Your task to perform on an android device: Clear the cart on newegg.com. Image 0: 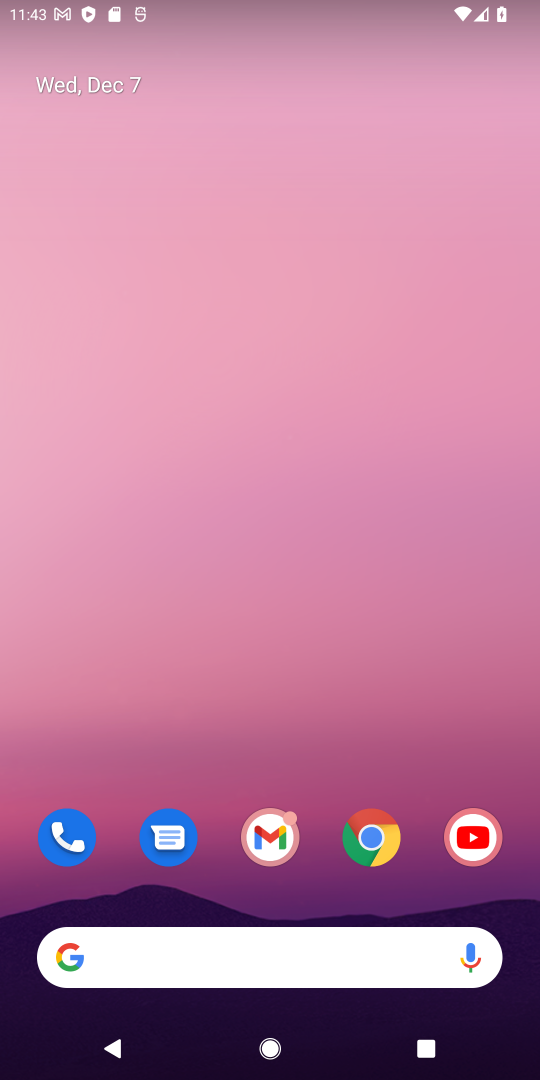
Step 0: click (353, 841)
Your task to perform on an android device: Clear the cart on newegg.com. Image 1: 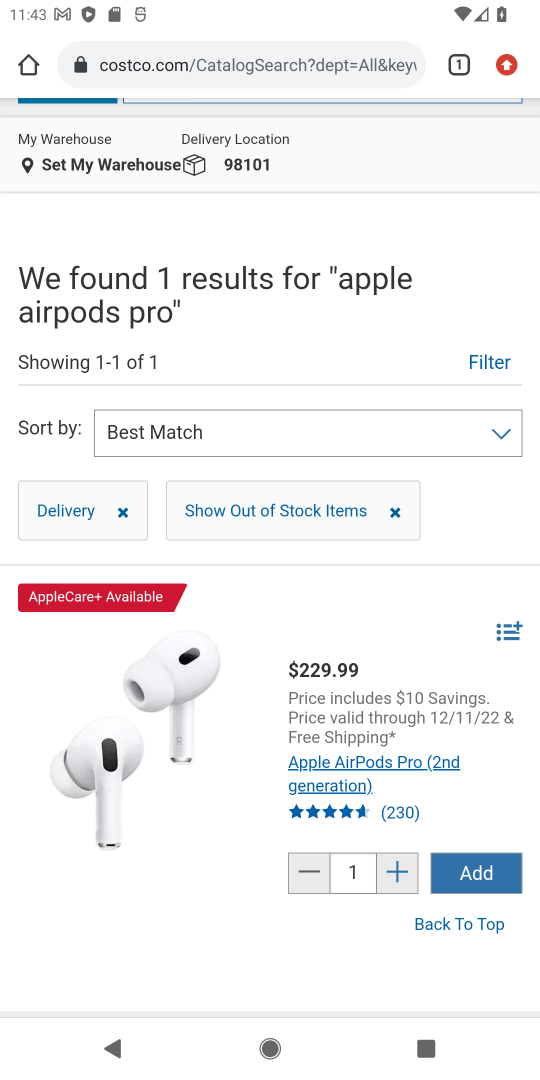
Step 1: click (299, 58)
Your task to perform on an android device: Clear the cart on newegg.com. Image 2: 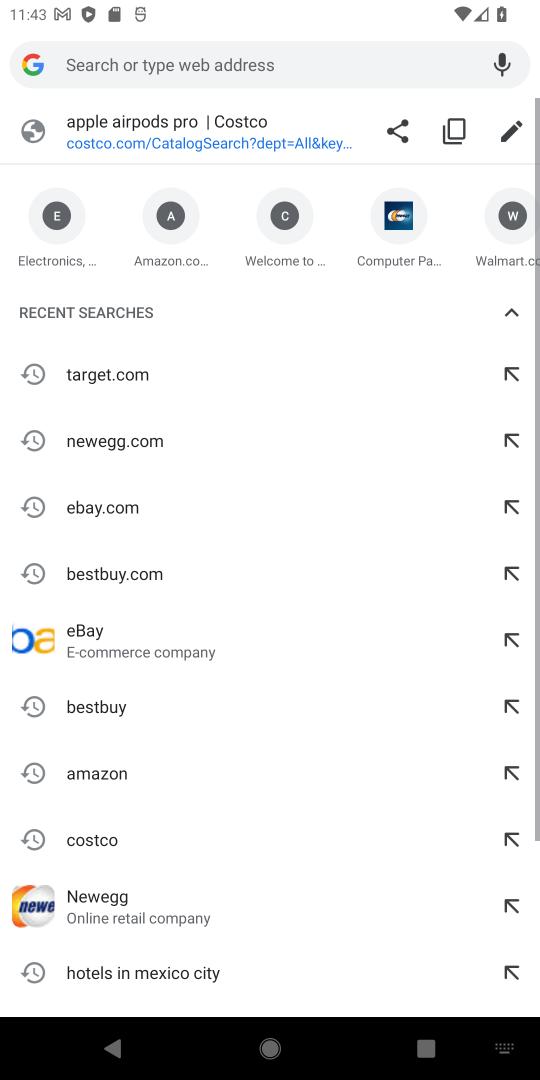
Step 2: click (122, 437)
Your task to perform on an android device: Clear the cart on newegg.com. Image 3: 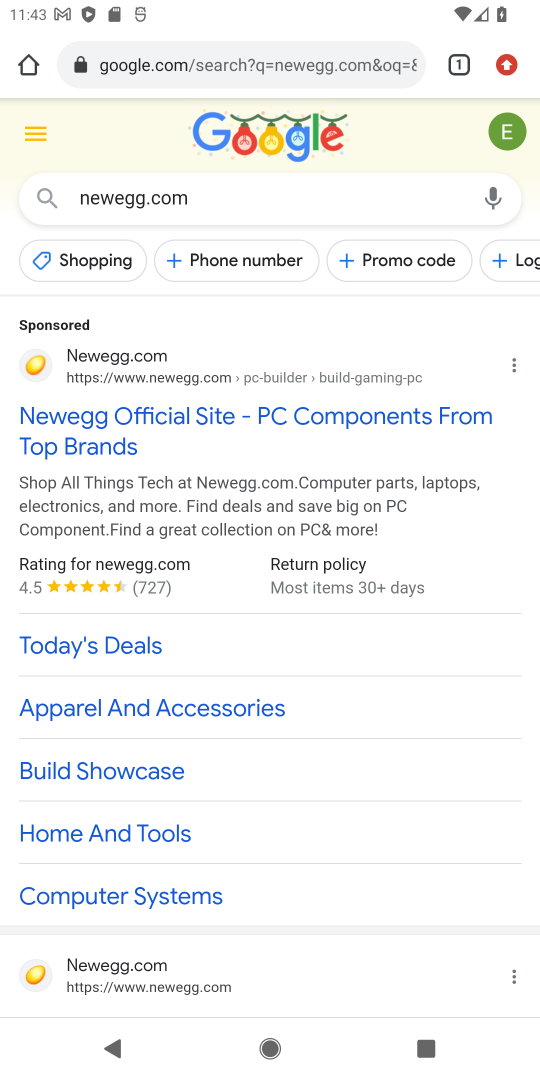
Step 3: click (141, 970)
Your task to perform on an android device: Clear the cart on newegg.com. Image 4: 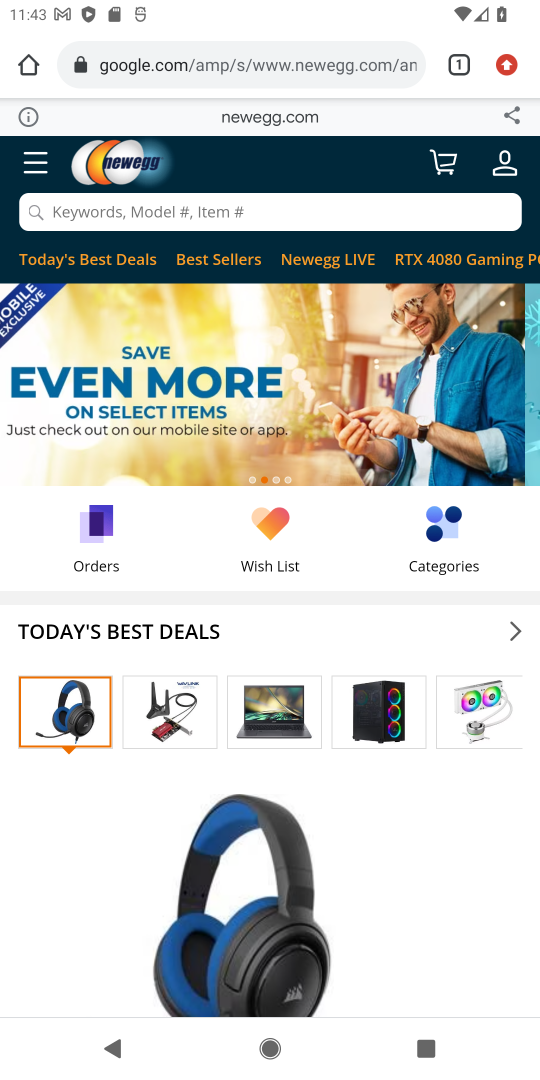
Step 4: click (441, 165)
Your task to perform on an android device: Clear the cart on newegg.com. Image 5: 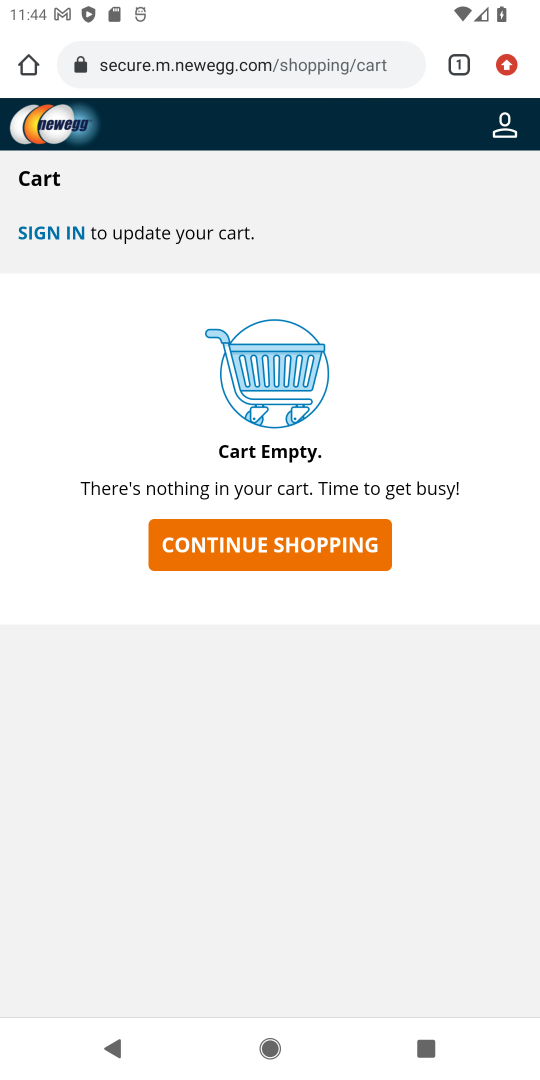
Step 5: task complete